Your task to perform on an android device: Toggle the flashlight Image 0: 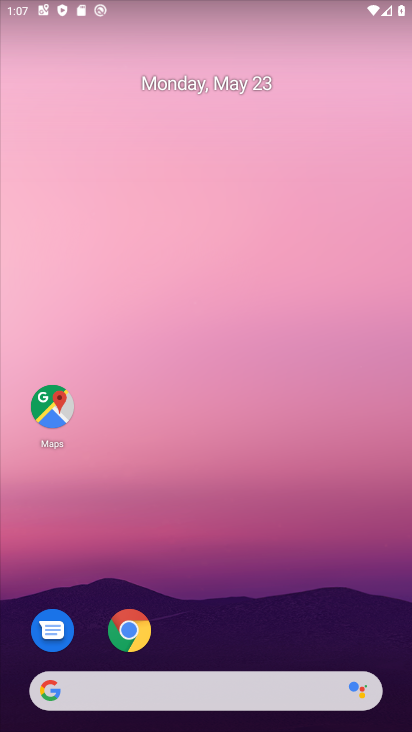
Step 0: drag from (303, 608) to (315, 271)
Your task to perform on an android device: Toggle the flashlight Image 1: 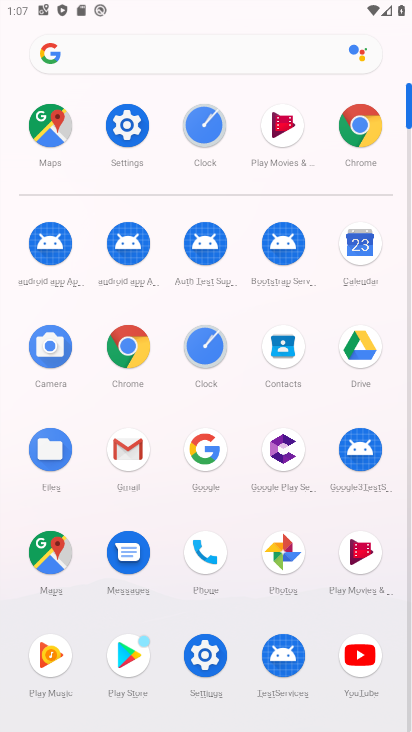
Step 1: click (124, 126)
Your task to perform on an android device: Toggle the flashlight Image 2: 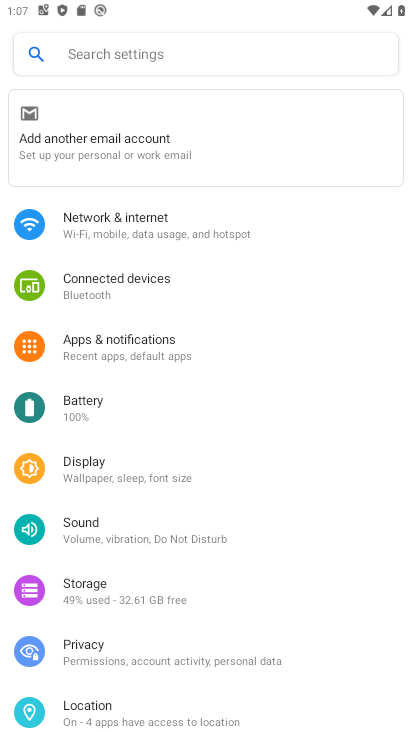
Step 2: click (230, 68)
Your task to perform on an android device: Toggle the flashlight Image 3: 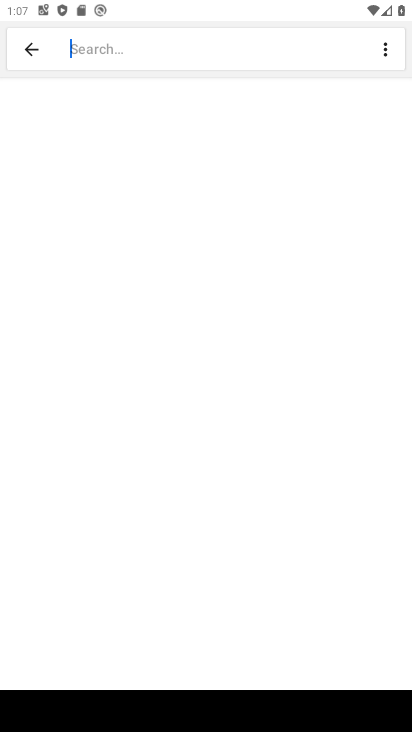
Step 3: type "flashlight"
Your task to perform on an android device: Toggle the flashlight Image 4: 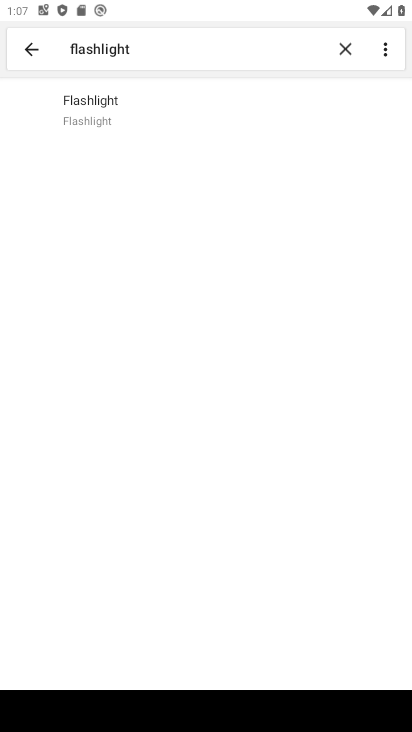
Step 4: click (145, 118)
Your task to perform on an android device: Toggle the flashlight Image 5: 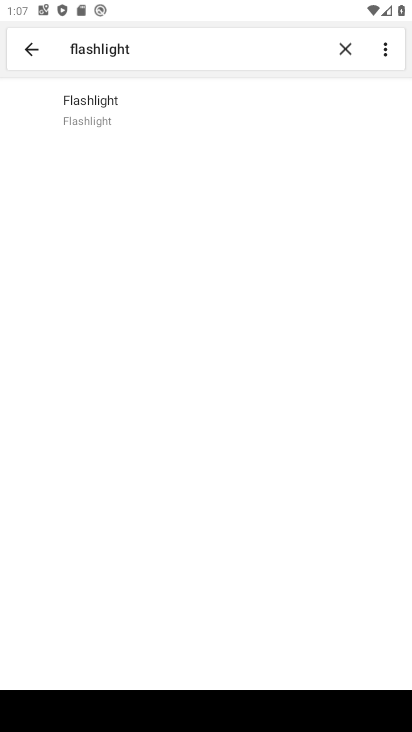
Step 5: task complete